Your task to perform on an android device: Show the shopping cart on amazon.com. Search for "bose soundlink mini" on amazon.com, select the first entry, and add it to the cart. Image 0: 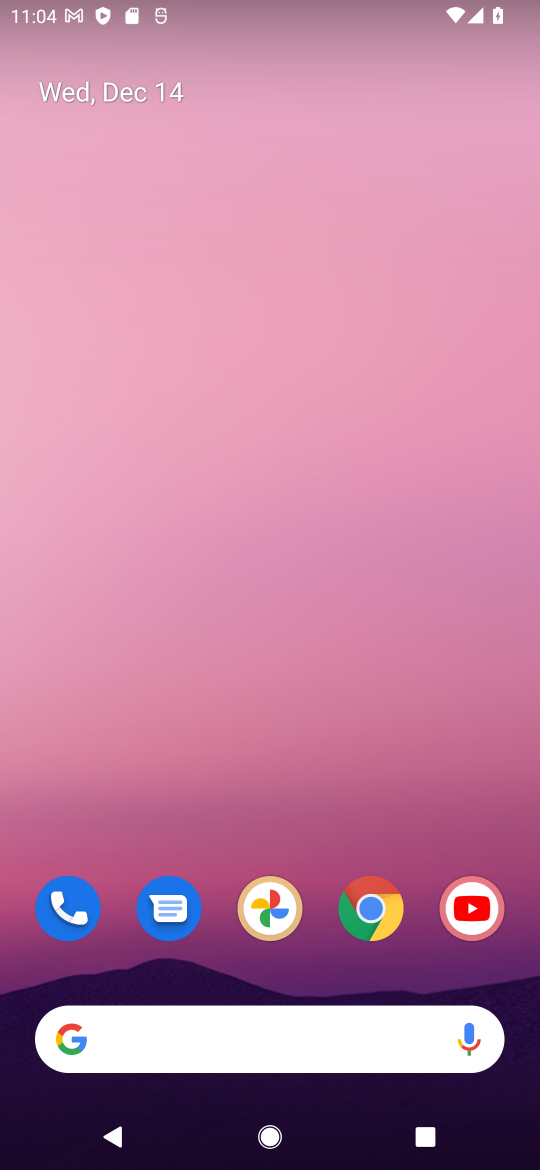
Step 0: click (370, 911)
Your task to perform on an android device: Show the shopping cart on amazon.com. Search for "bose soundlink mini" on amazon.com, select the first entry, and add it to the cart. Image 1: 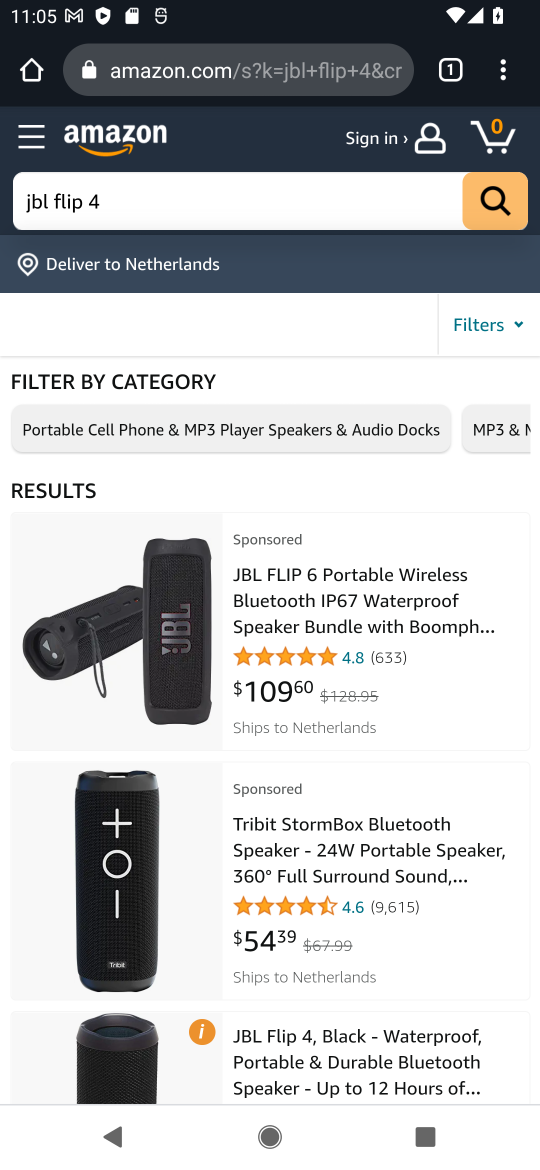
Step 1: click (506, 136)
Your task to perform on an android device: Show the shopping cart on amazon.com. Search for "bose soundlink mini" on amazon.com, select the first entry, and add it to the cart. Image 2: 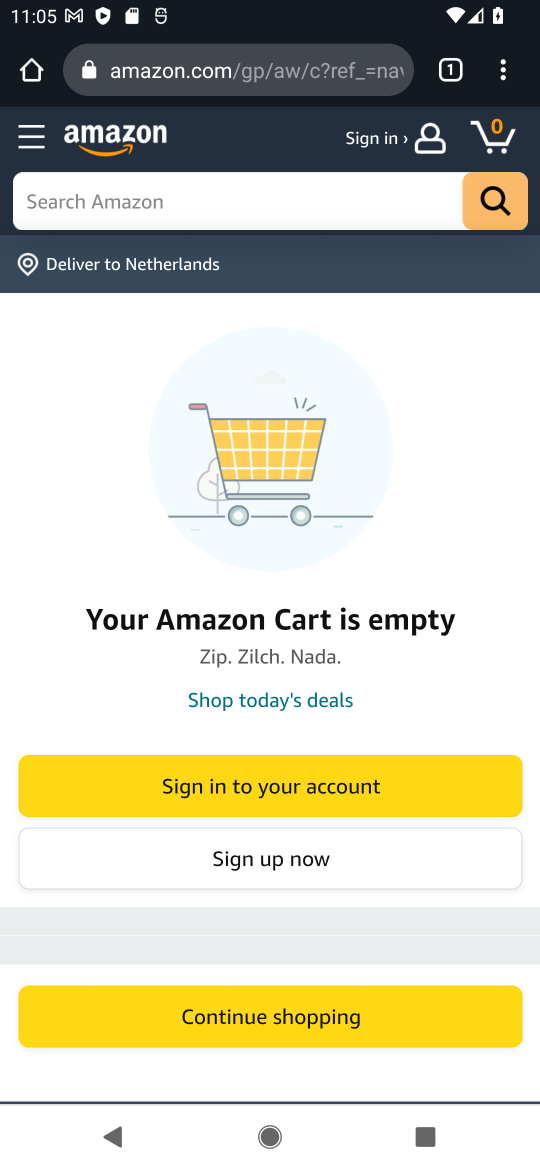
Step 2: click (79, 218)
Your task to perform on an android device: Show the shopping cart on amazon.com. Search for "bose soundlink mini" on amazon.com, select the first entry, and add it to the cart. Image 3: 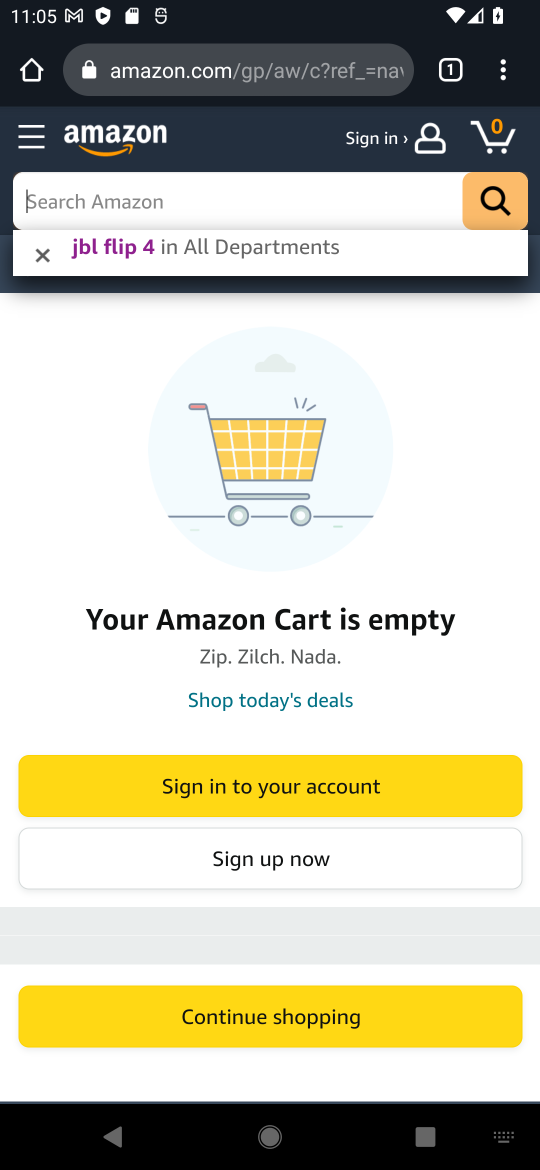
Step 3: type "bose soundlink mini"
Your task to perform on an android device: Show the shopping cart on amazon.com. Search for "bose soundlink mini" on amazon.com, select the first entry, and add it to the cart. Image 4: 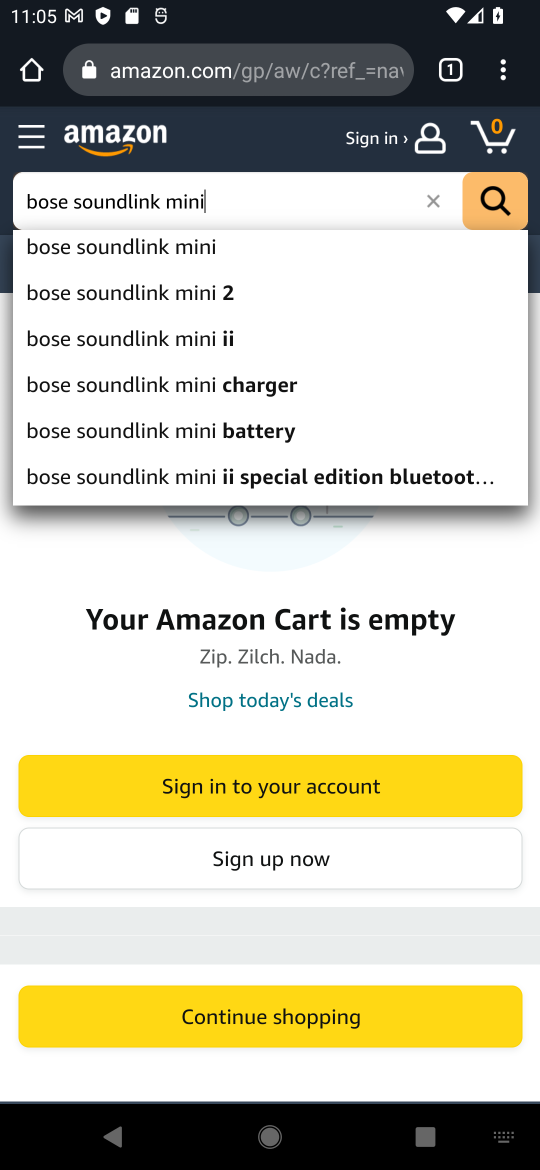
Step 4: click (153, 256)
Your task to perform on an android device: Show the shopping cart on amazon.com. Search for "bose soundlink mini" on amazon.com, select the first entry, and add it to the cart. Image 5: 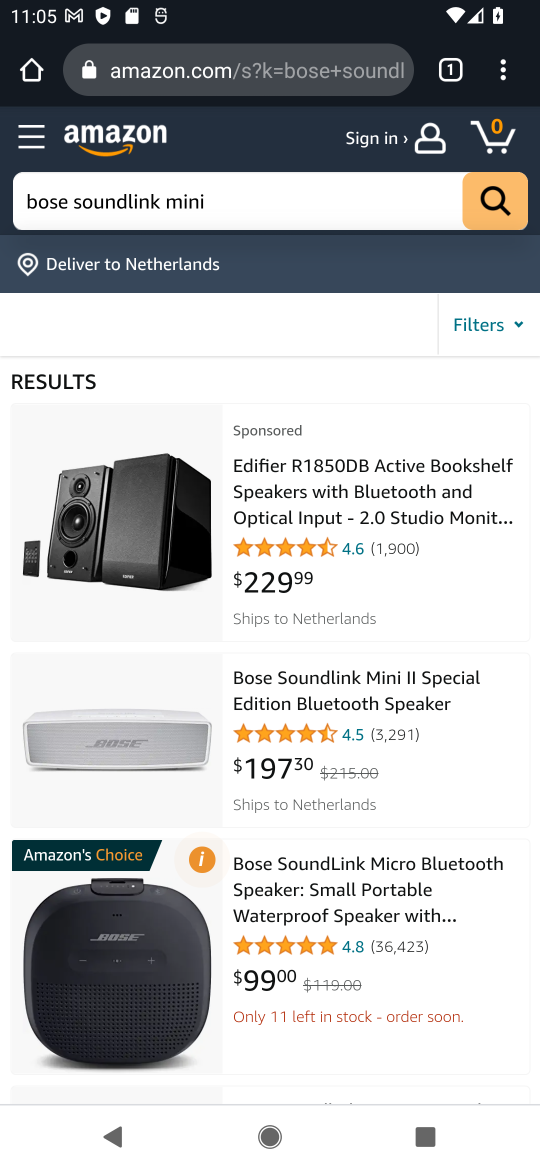
Step 5: click (329, 496)
Your task to perform on an android device: Show the shopping cart on amazon.com. Search for "bose soundlink mini" on amazon.com, select the first entry, and add it to the cart. Image 6: 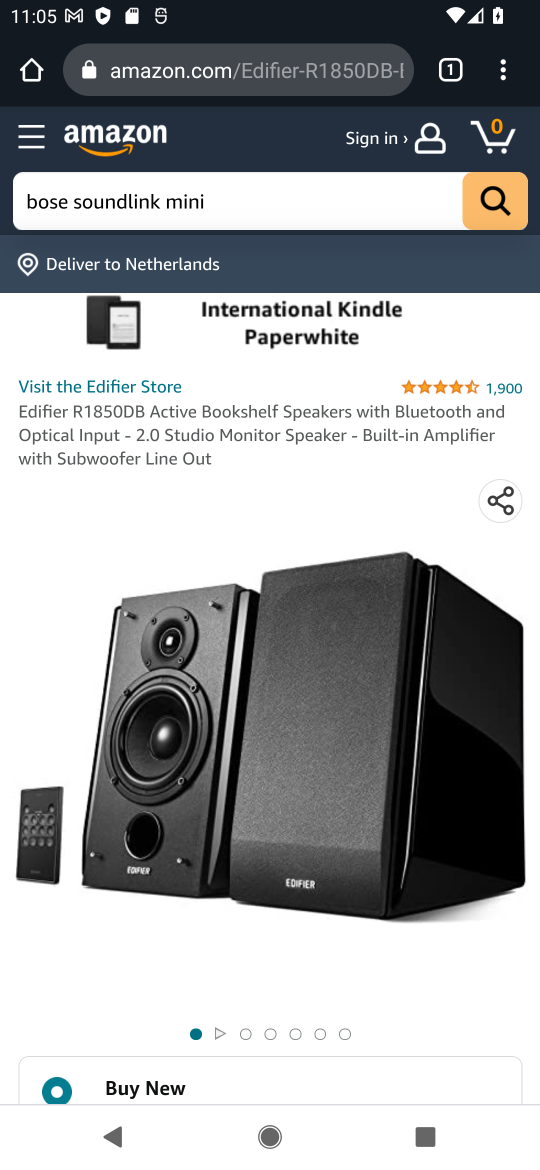
Step 6: task complete